Your task to perform on an android device: Find coffee shops on Maps Image 0: 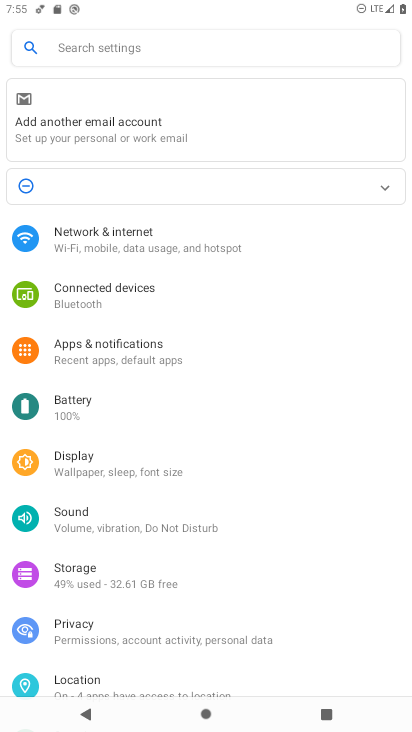
Step 0: press home button
Your task to perform on an android device: Find coffee shops on Maps Image 1: 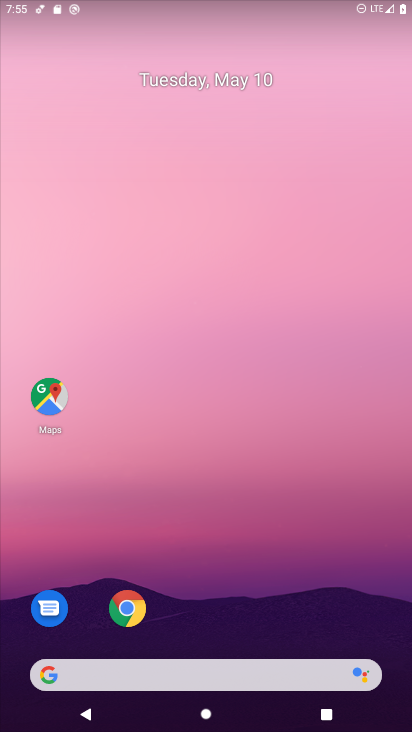
Step 1: click (36, 379)
Your task to perform on an android device: Find coffee shops on Maps Image 2: 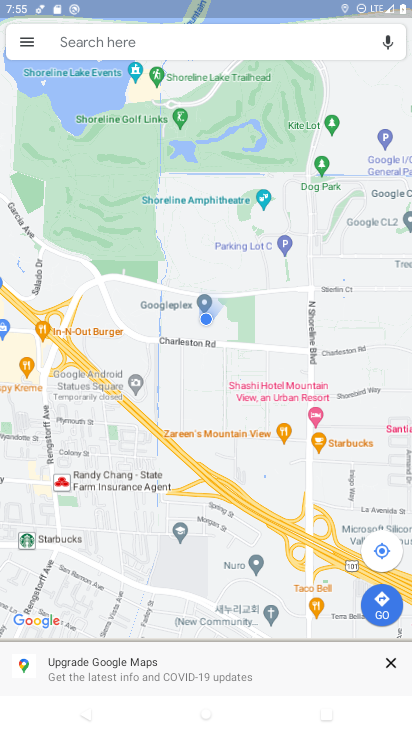
Step 2: click (171, 32)
Your task to perform on an android device: Find coffee shops on Maps Image 3: 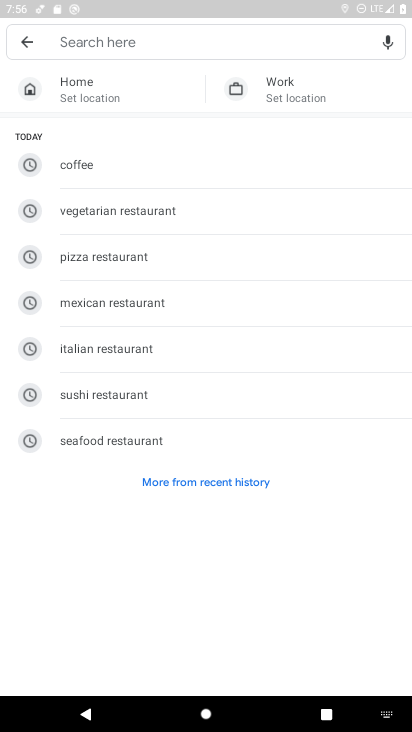
Step 3: click (97, 162)
Your task to perform on an android device: Find coffee shops on Maps Image 4: 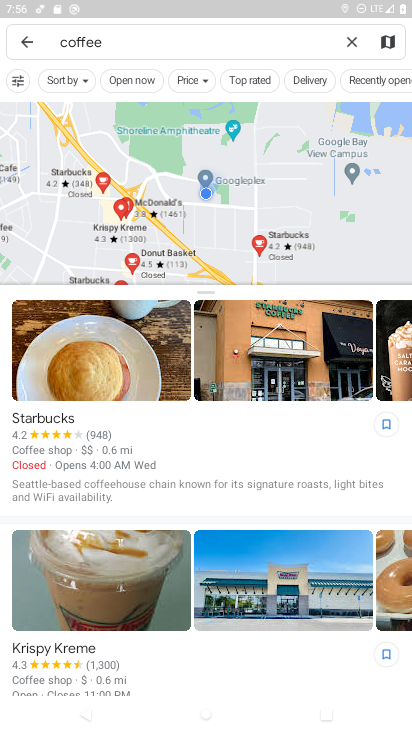
Step 4: task complete